Your task to perform on an android device: allow notifications from all sites in the chrome app Image 0: 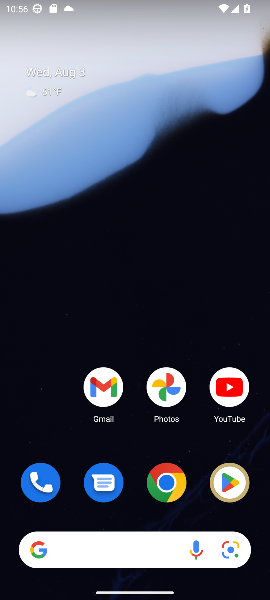
Step 0: click (163, 484)
Your task to perform on an android device: allow notifications from all sites in the chrome app Image 1: 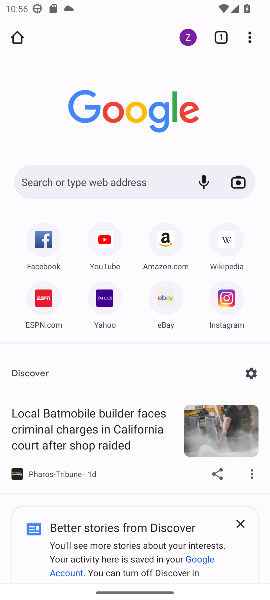
Step 1: task complete